Your task to perform on an android device: see creations saved in the google photos Image 0: 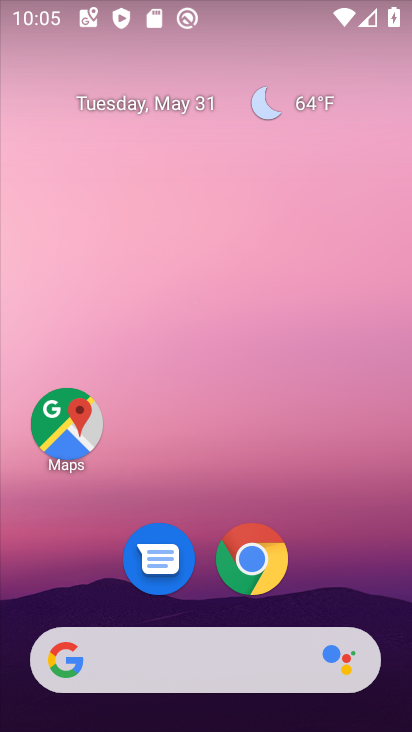
Step 0: drag from (91, 614) to (218, 93)
Your task to perform on an android device: see creations saved in the google photos Image 1: 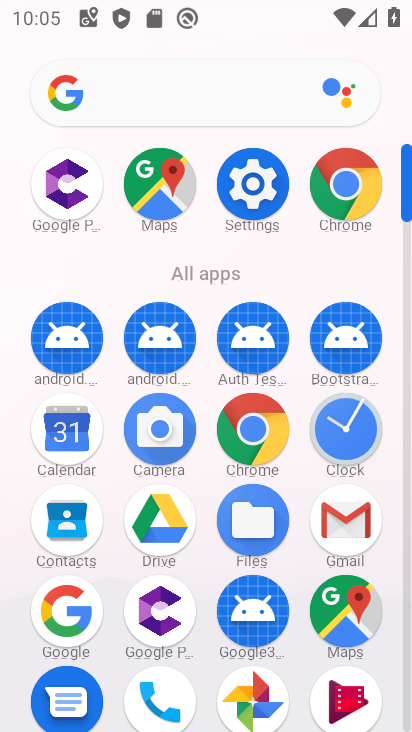
Step 1: drag from (152, 619) to (222, 344)
Your task to perform on an android device: see creations saved in the google photos Image 2: 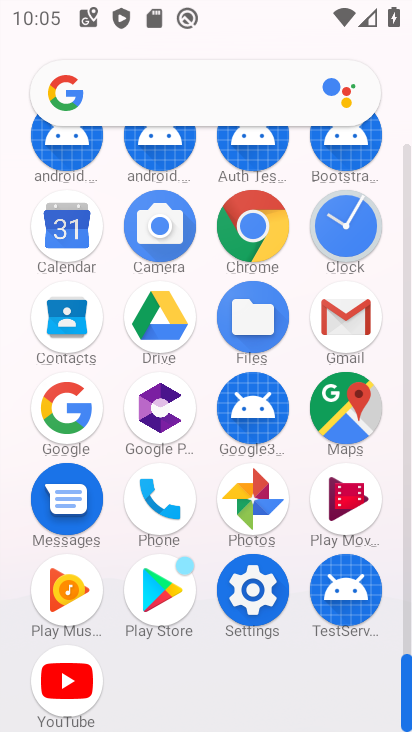
Step 2: click (256, 495)
Your task to perform on an android device: see creations saved in the google photos Image 3: 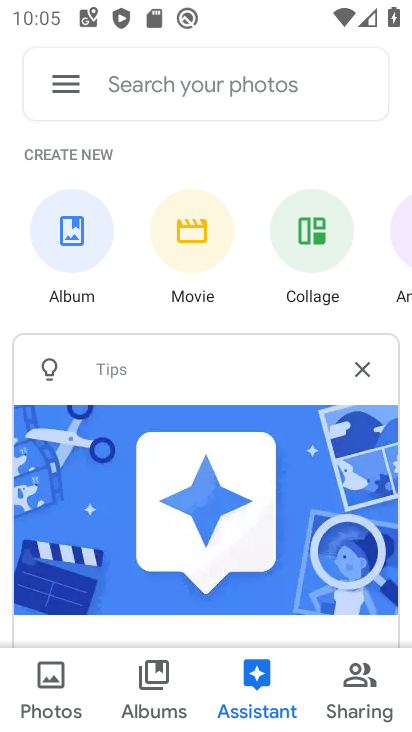
Step 3: click (222, 90)
Your task to perform on an android device: see creations saved in the google photos Image 4: 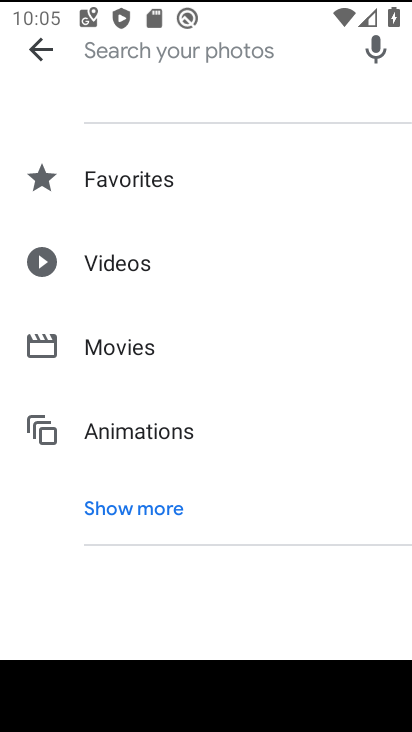
Step 4: click (148, 500)
Your task to perform on an android device: see creations saved in the google photos Image 5: 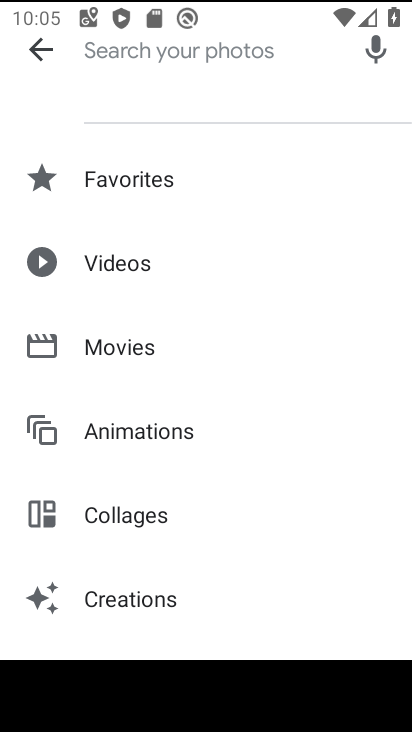
Step 5: click (128, 601)
Your task to perform on an android device: see creations saved in the google photos Image 6: 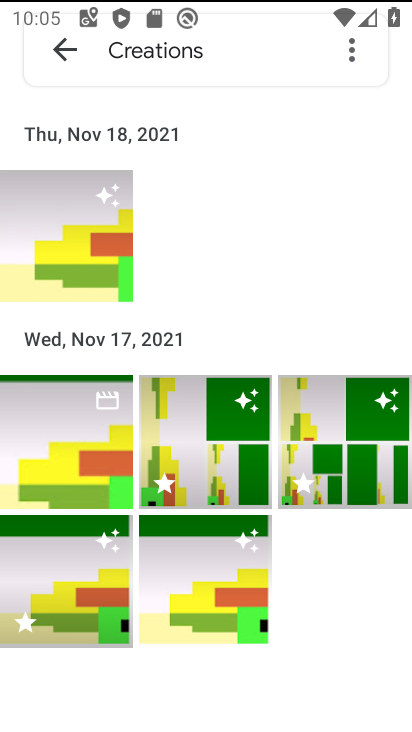
Step 6: task complete